Your task to perform on an android device: Show me productivity apps on the Play Store Image 0: 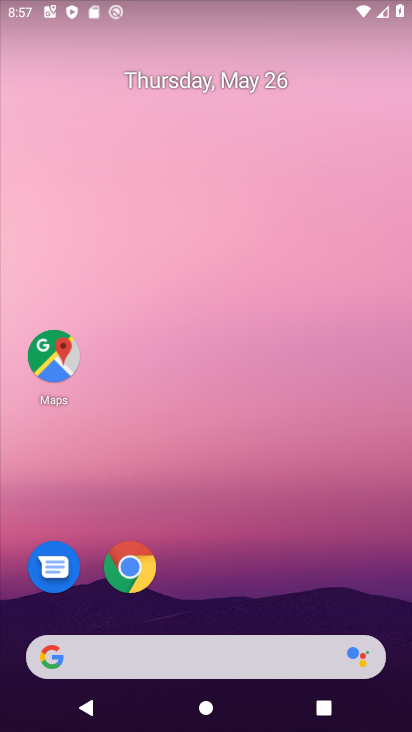
Step 0: press home button
Your task to perform on an android device: Show me productivity apps on the Play Store Image 1: 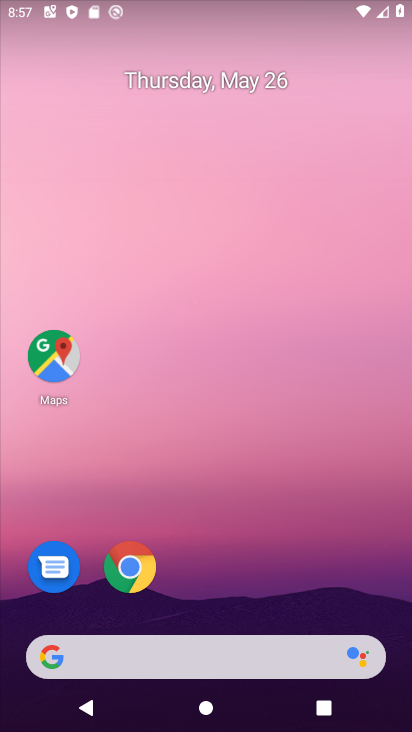
Step 1: drag from (120, 643) to (274, 104)
Your task to perform on an android device: Show me productivity apps on the Play Store Image 2: 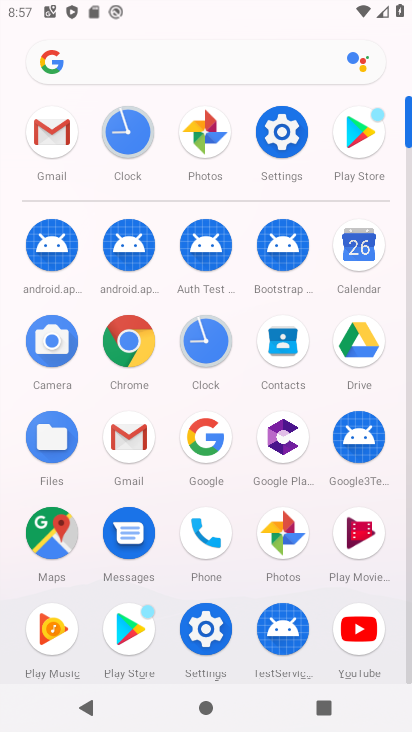
Step 2: click (131, 632)
Your task to perform on an android device: Show me productivity apps on the Play Store Image 3: 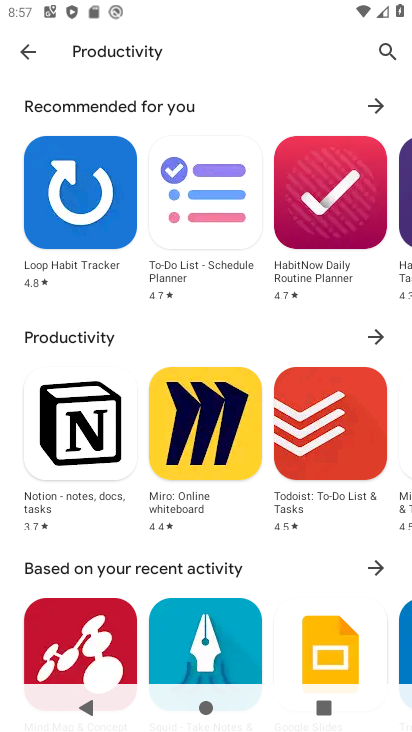
Step 3: task complete